Your task to perform on an android device: change notifications settings Image 0: 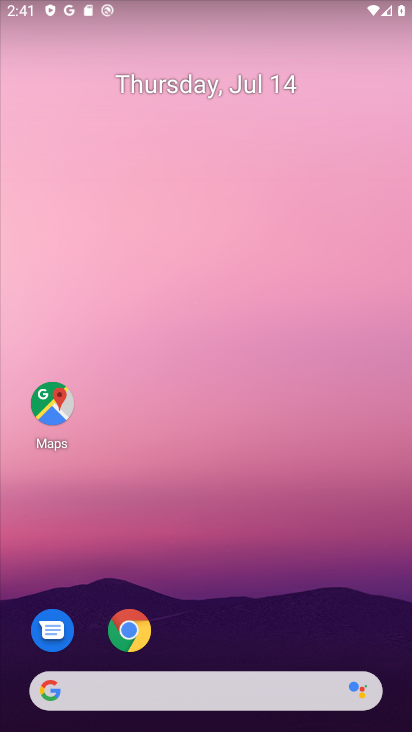
Step 0: drag from (293, 596) to (199, 26)
Your task to perform on an android device: change notifications settings Image 1: 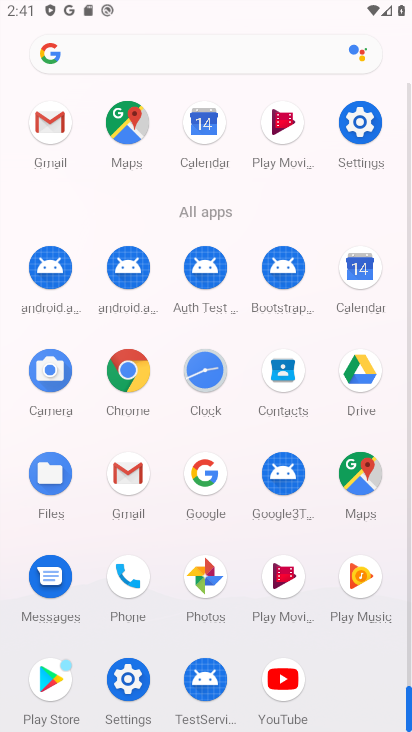
Step 1: click (357, 112)
Your task to perform on an android device: change notifications settings Image 2: 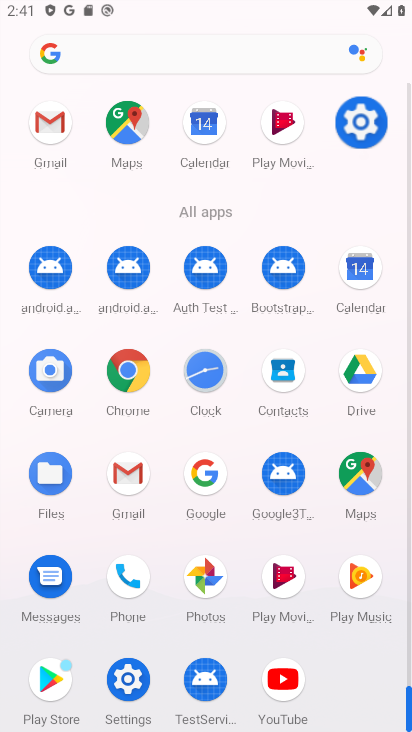
Step 2: click (358, 112)
Your task to perform on an android device: change notifications settings Image 3: 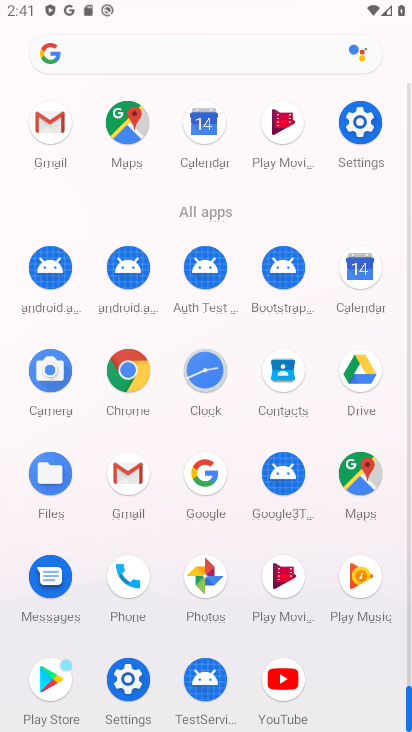
Step 3: click (361, 112)
Your task to perform on an android device: change notifications settings Image 4: 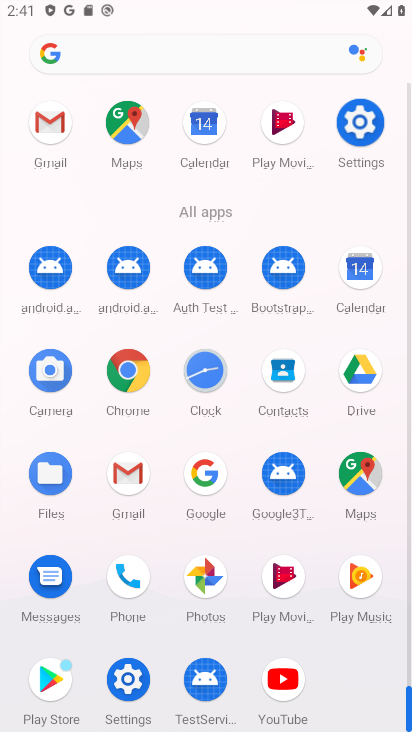
Step 4: click (362, 112)
Your task to perform on an android device: change notifications settings Image 5: 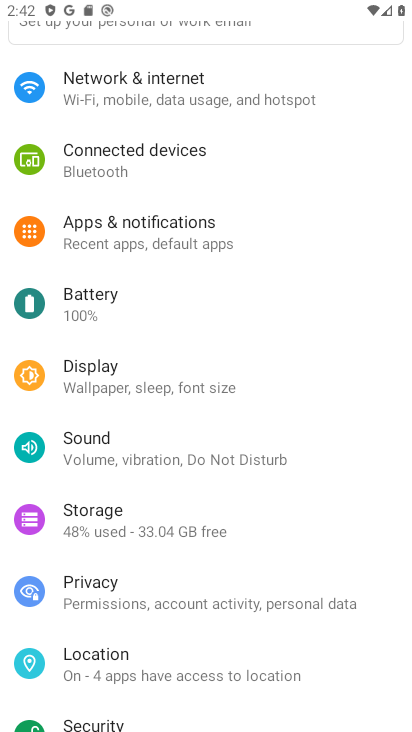
Step 5: click (135, 224)
Your task to perform on an android device: change notifications settings Image 6: 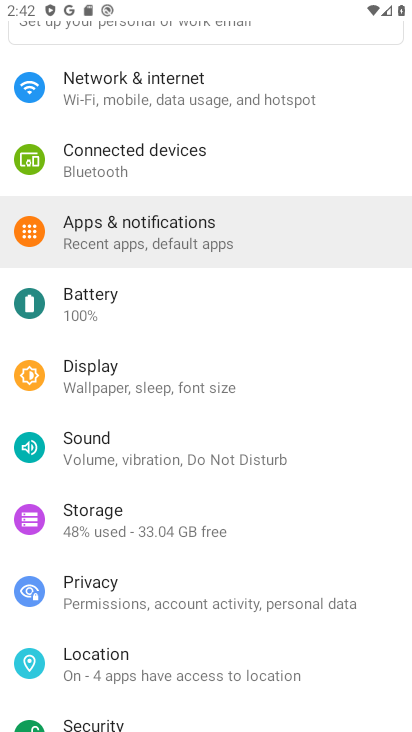
Step 6: click (138, 224)
Your task to perform on an android device: change notifications settings Image 7: 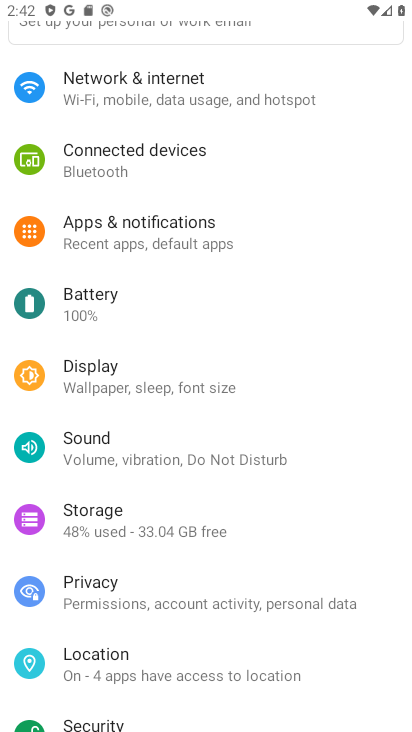
Step 7: click (139, 225)
Your task to perform on an android device: change notifications settings Image 8: 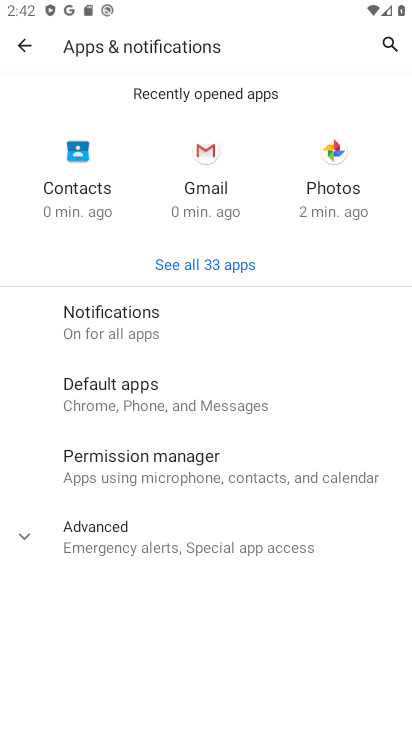
Step 8: click (99, 322)
Your task to perform on an android device: change notifications settings Image 9: 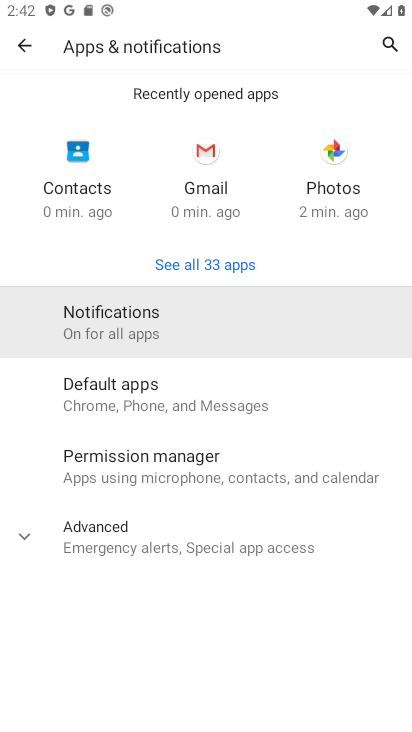
Step 9: click (99, 318)
Your task to perform on an android device: change notifications settings Image 10: 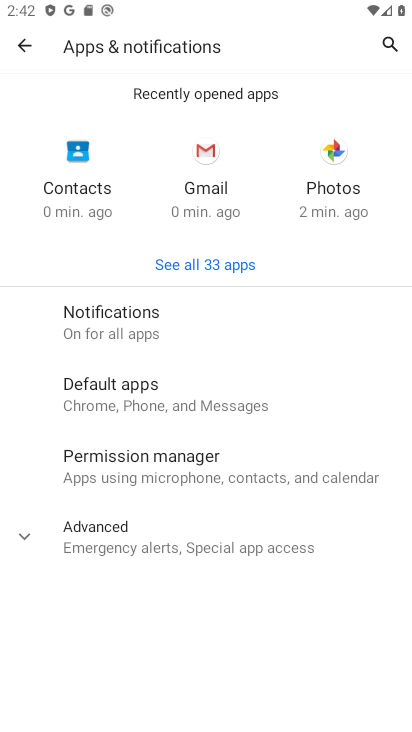
Step 10: click (99, 318)
Your task to perform on an android device: change notifications settings Image 11: 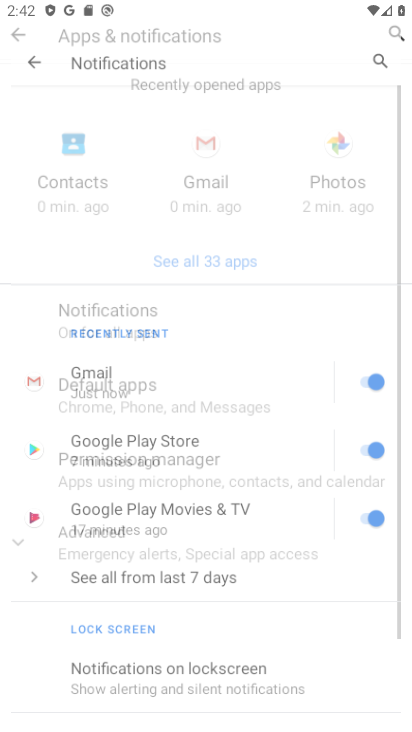
Step 11: click (99, 318)
Your task to perform on an android device: change notifications settings Image 12: 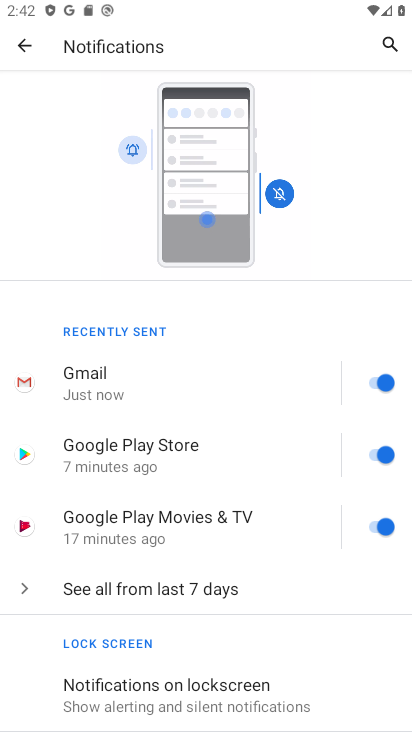
Step 12: drag from (213, 490) to (172, 304)
Your task to perform on an android device: change notifications settings Image 13: 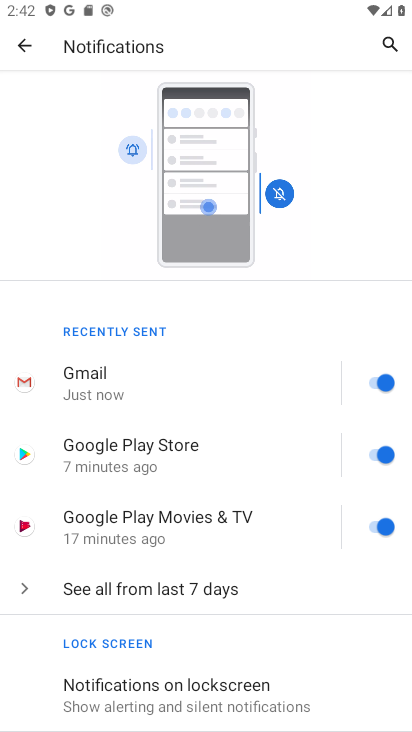
Step 13: drag from (188, 393) to (183, 359)
Your task to perform on an android device: change notifications settings Image 14: 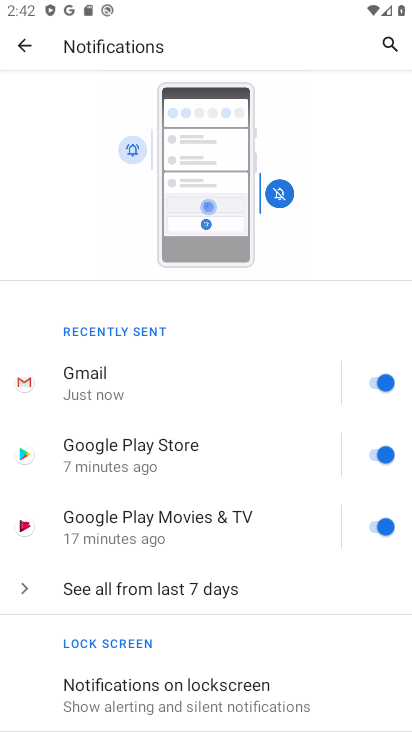
Step 14: drag from (147, 645) to (124, 378)
Your task to perform on an android device: change notifications settings Image 15: 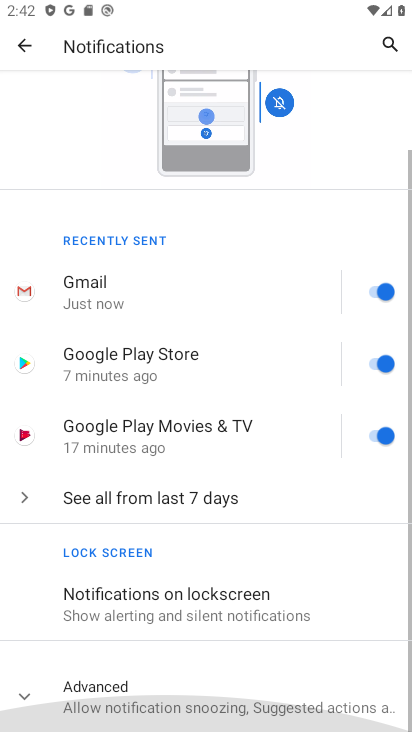
Step 15: drag from (187, 548) to (214, 397)
Your task to perform on an android device: change notifications settings Image 16: 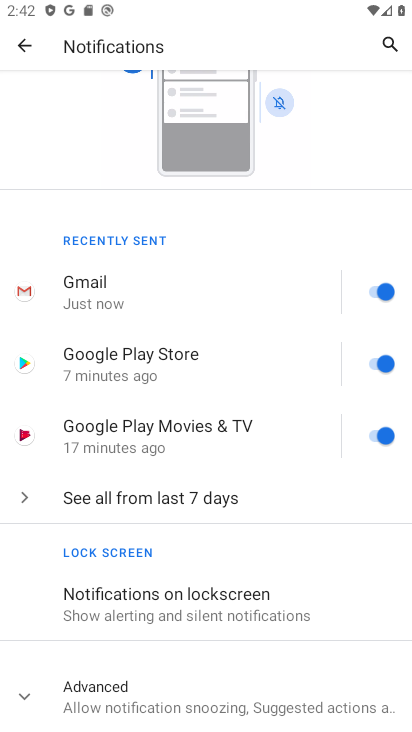
Step 16: click (384, 285)
Your task to perform on an android device: change notifications settings Image 17: 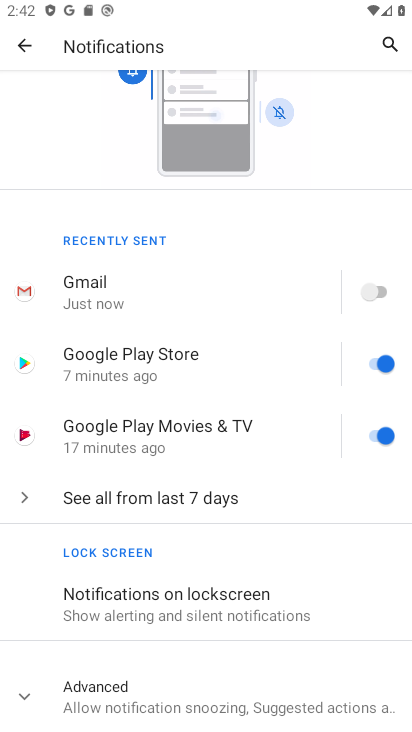
Step 17: click (389, 366)
Your task to perform on an android device: change notifications settings Image 18: 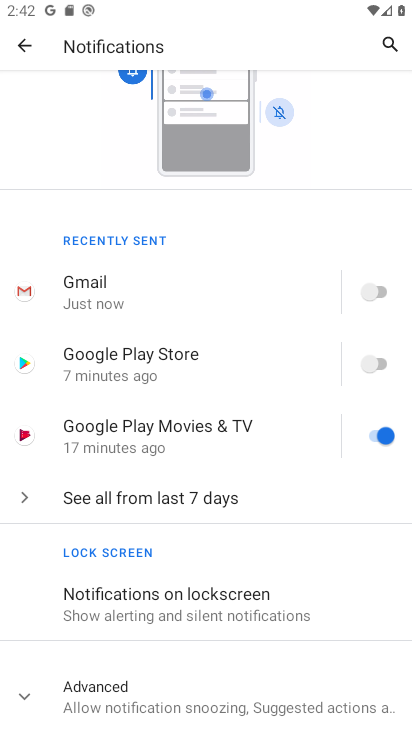
Step 18: click (390, 437)
Your task to perform on an android device: change notifications settings Image 19: 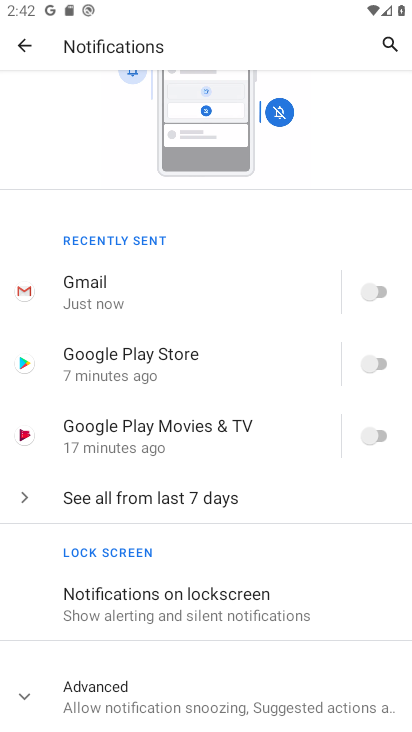
Step 19: task complete